Your task to perform on an android device: change alarm snooze length Image 0: 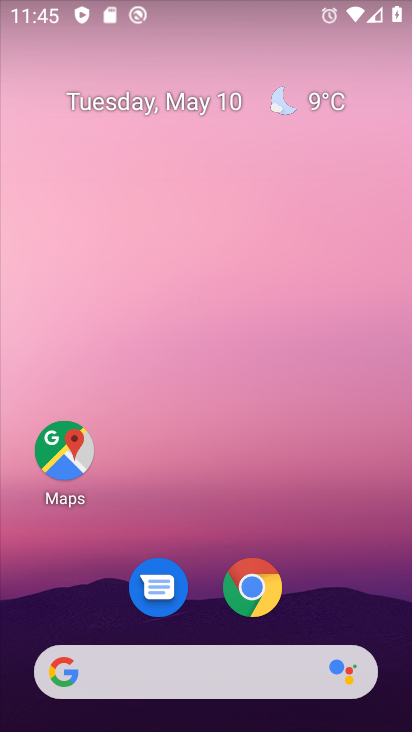
Step 0: drag from (330, 622) to (342, 21)
Your task to perform on an android device: change alarm snooze length Image 1: 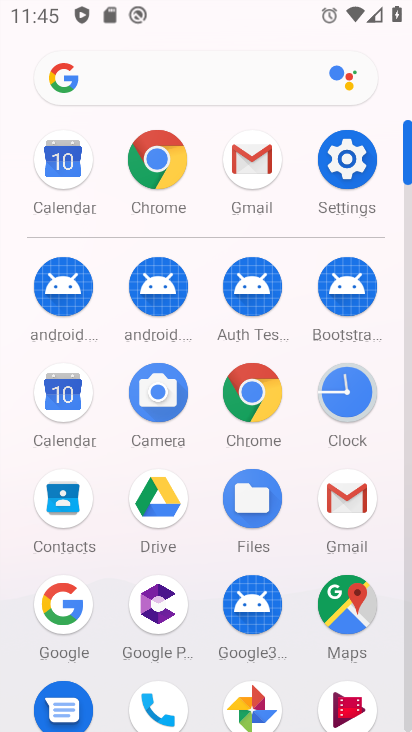
Step 1: click (339, 391)
Your task to perform on an android device: change alarm snooze length Image 2: 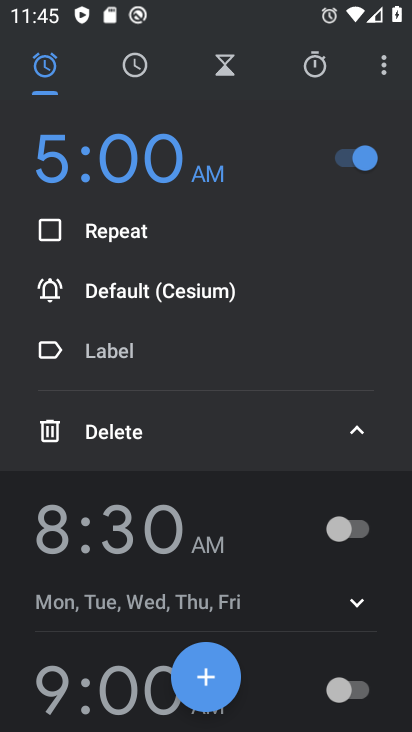
Step 2: click (390, 64)
Your task to perform on an android device: change alarm snooze length Image 3: 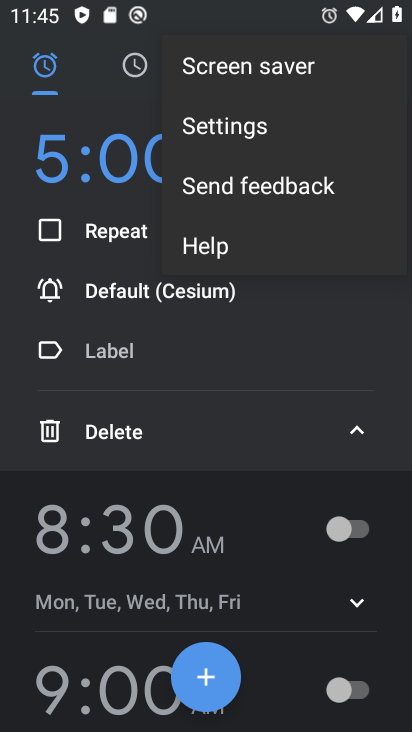
Step 3: click (251, 139)
Your task to perform on an android device: change alarm snooze length Image 4: 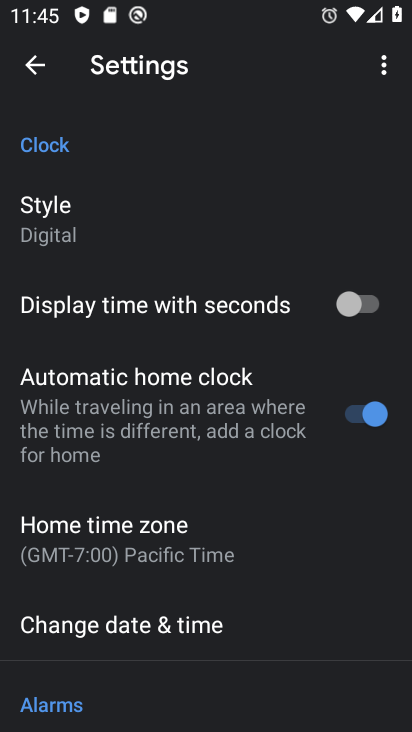
Step 4: drag from (177, 514) to (182, 193)
Your task to perform on an android device: change alarm snooze length Image 5: 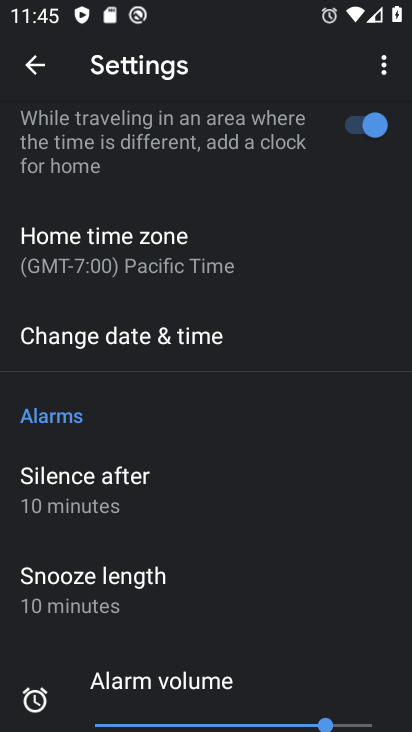
Step 5: drag from (164, 474) to (168, 195)
Your task to perform on an android device: change alarm snooze length Image 6: 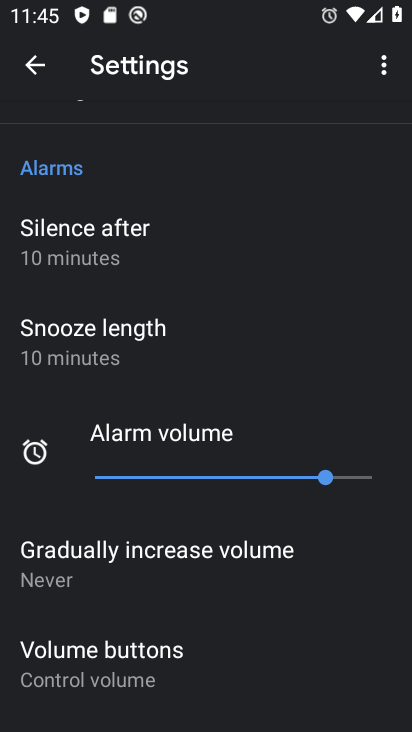
Step 6: click (85, 356)
Your task to perform on an android device: change alarm snooze length Image 7: 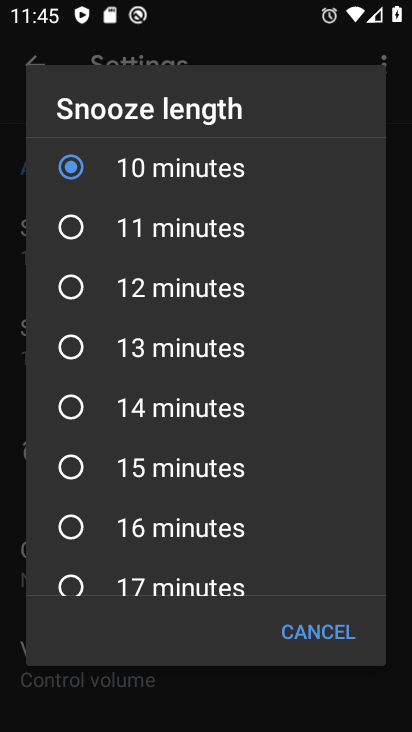
Step 7: click (73, 347)
Your task to perform on an android device: change alarm snooze length Image 8: 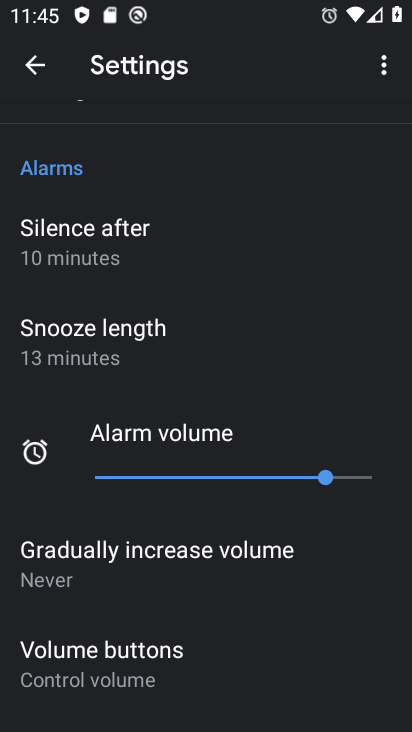
Step 8: task complete